Your task to perform on an android device: Open CNN.com Image 0: 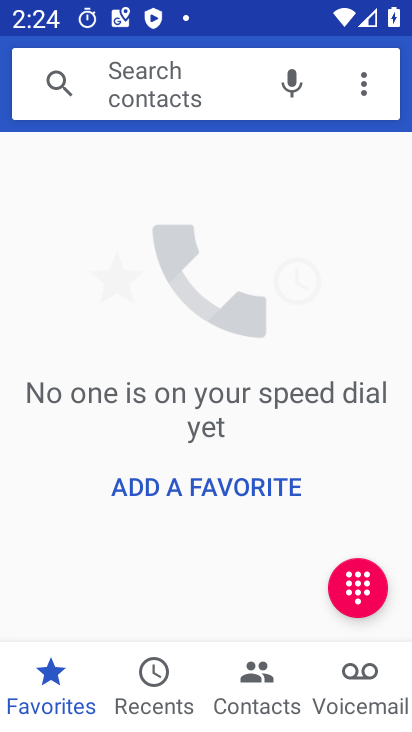
Step 0: press home button
Your task to perform on an android device: Open CNN.com Image 1: 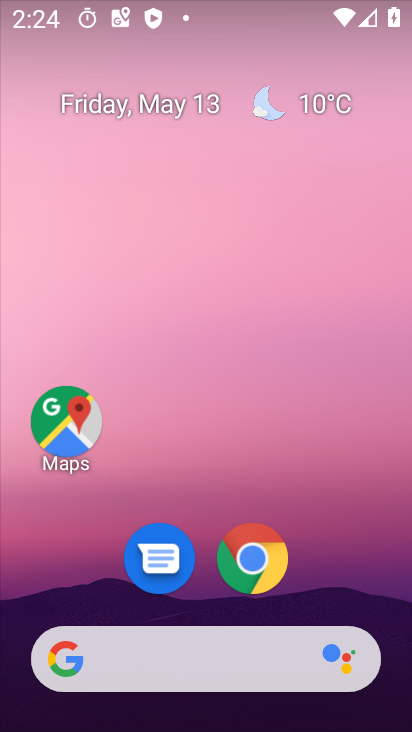
Step 1: click (247, 557)
Your task to perform on an android device: Open CNN.com Image 2: 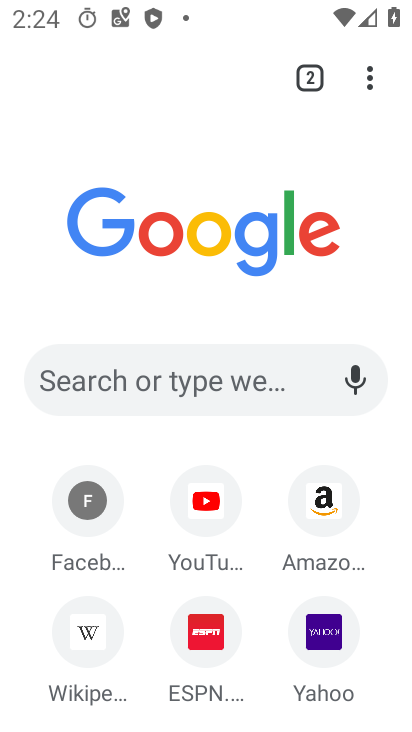
Step 2: click (185, 372)
Your task to perform on an android device: Open CNN.com Image 3: 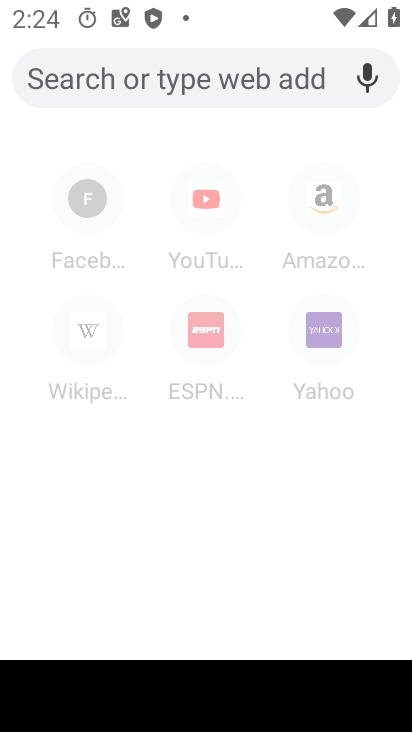
Step 3: type "CNN.com"
Your task to perform on an android device: Open CNN.com Image 4: 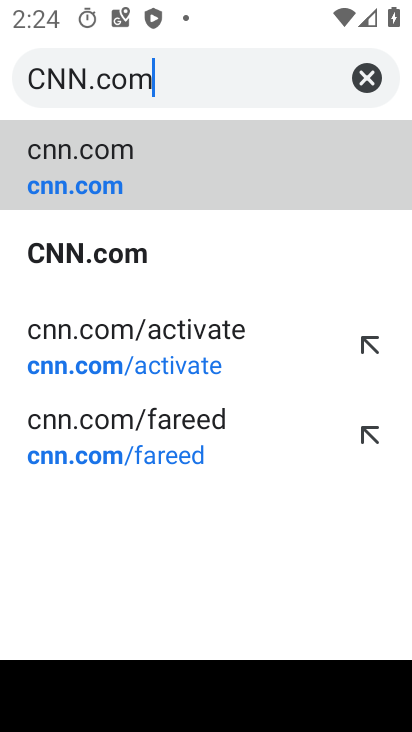
Step 4: click (144, 182)
Your task to perform on an android device: Open CNN.com Image 5: 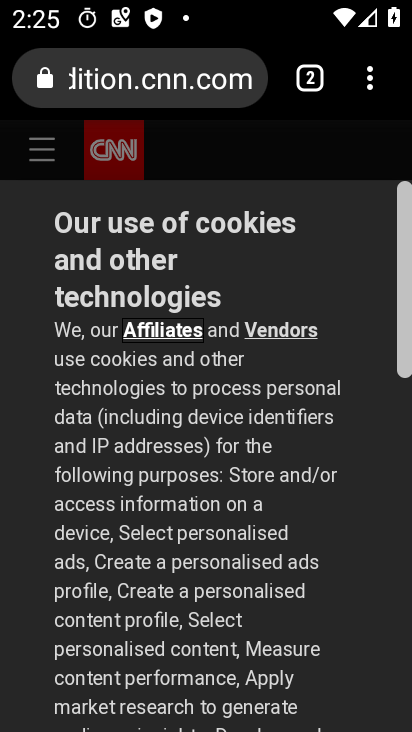
Step 5: task complete